Your task to perform on an android device: Open Youtube and go to the subscriptions tab Image 0: 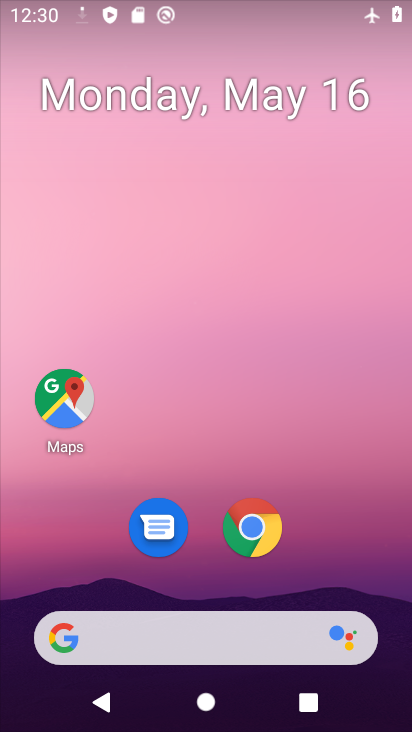
Step 0: drag from (195, 504) to (221, 175)
Your task to perform on an android device: Open Youtube and go to the subscriptions tab Image 1: 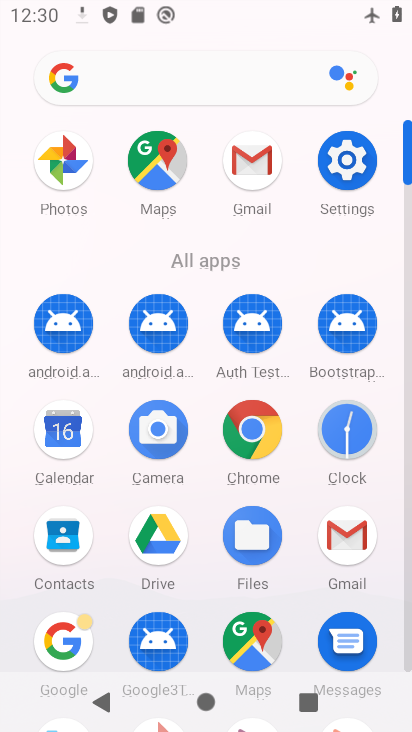
Step 1: drag from (203, 548) to (211, 307)
Your task to perform on an android device: Open Youtube and go to the subscriptions tab Image 2: 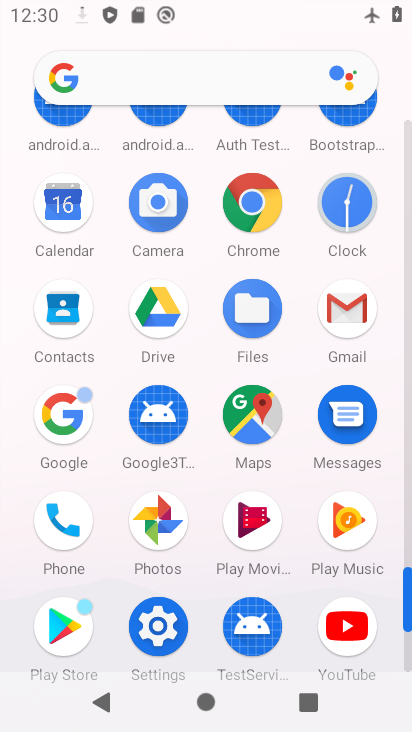
Step 2: click (359, 626)
Your task to perform on an android device: Open Youtube and go to the subscriptions tab Image 3: 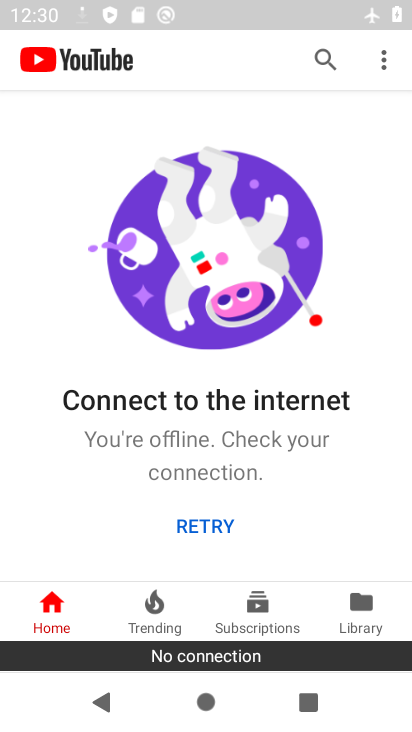
Step 3: task complete